Your task to perform on an android device: Open internet settings Image 0: 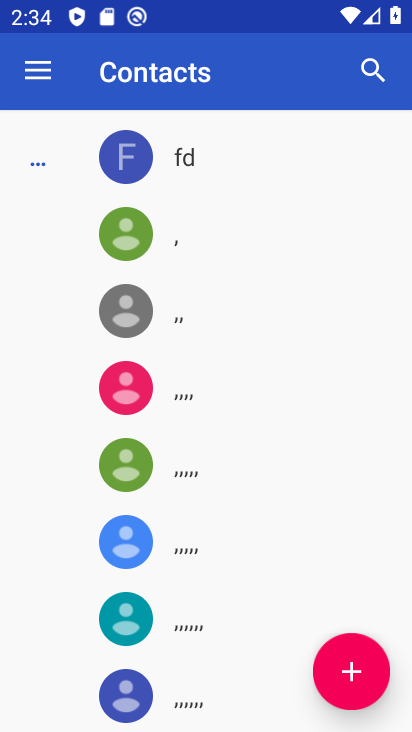
Step 0: press back button
Your task to perform on an android device: Open internet settings Image 1: 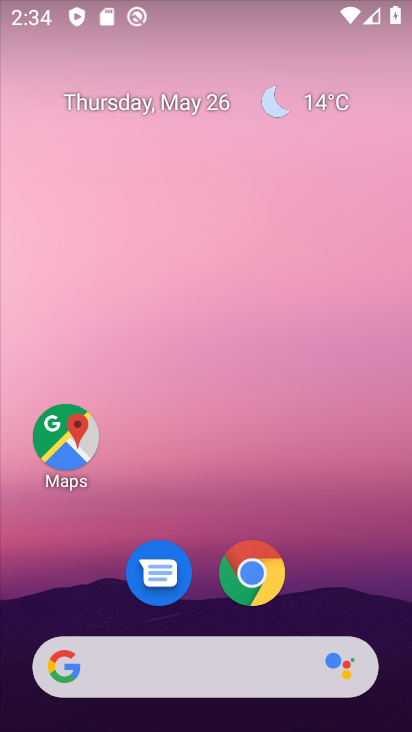
Step 1: drag from (310, 537) to (243, 55)
Your task to perform on an android device: Open internet settings Image 2: 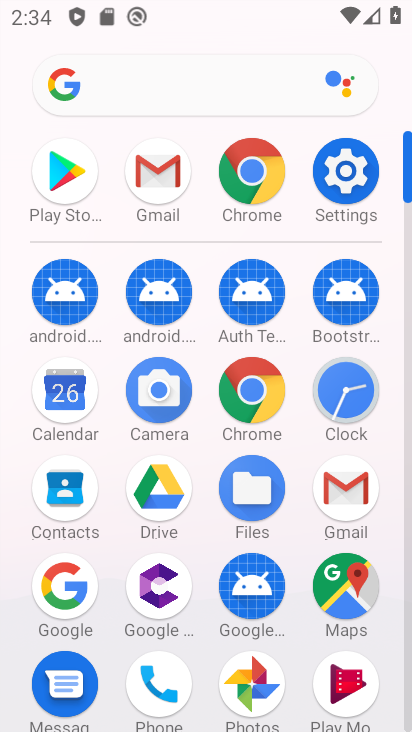
Step 2: drag from (22, 567) to (25, 255)
Your task to perform on an android device: Open internet settings Image 3: 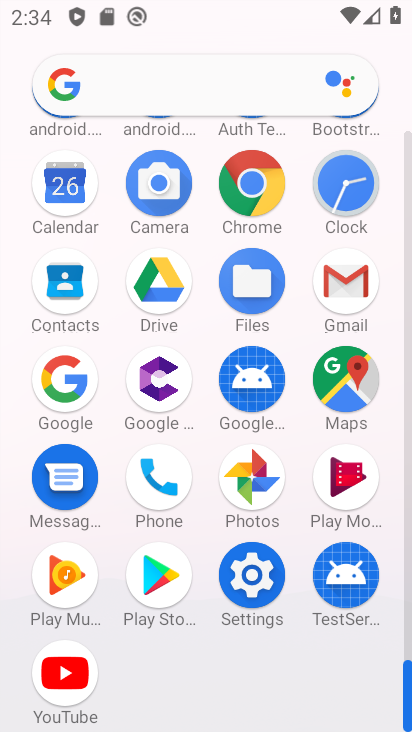
Step 3: click (246, 575)
Your task to perform on an android device: Open internet settings Image 4: 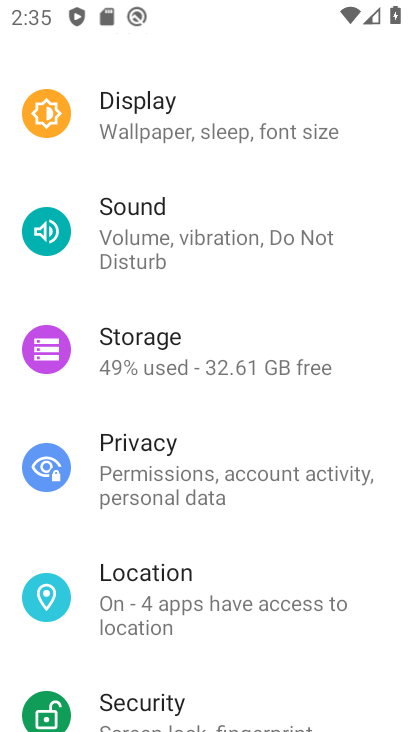
Step 4: drag from (210, 232) to (193, 611)
Your task to perform on an android device: Open internet settings Image 5: 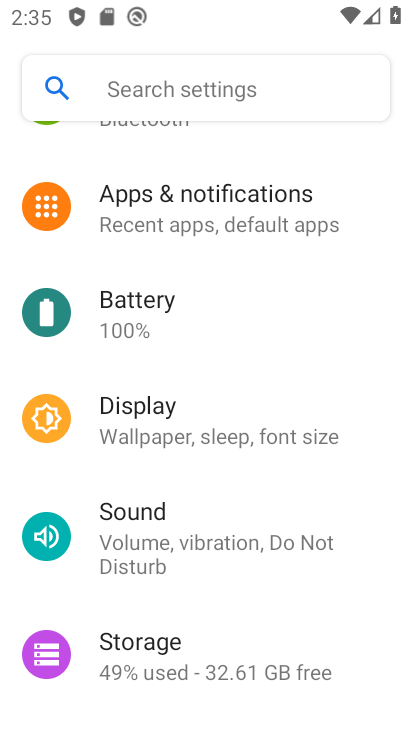
Step 5: drag from (245, 251) to (235, 609)
Your task to perform on an android device: Open internet settings Image 6: 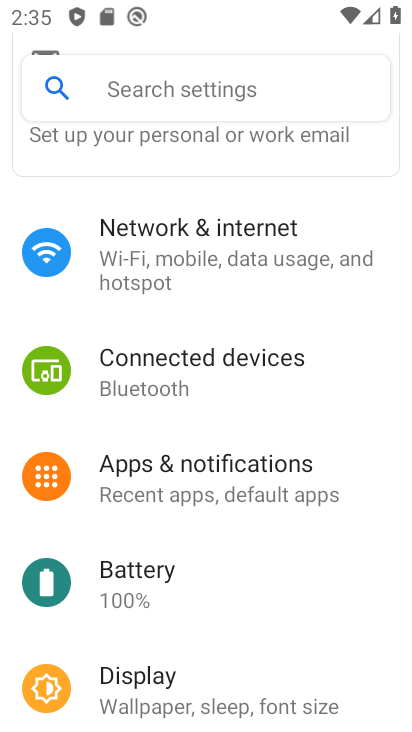
Step 6: click (214, 251)
Your task to perform on an android device: Open internet settings Image 7: 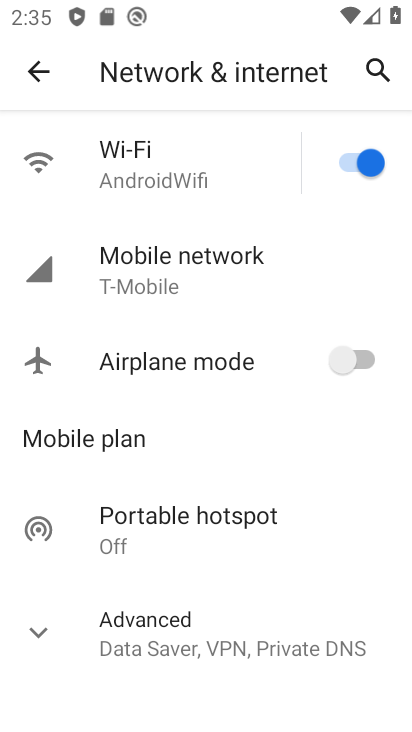
Step 7: task complete